Your task to perform on an android device: turn notification dots on Image 0: 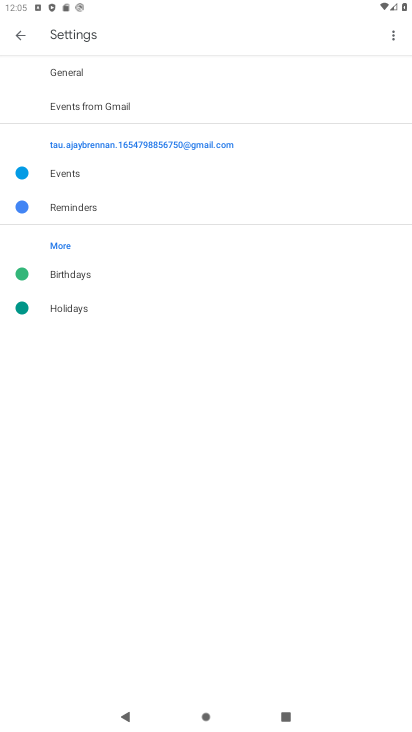
Step 0: press home button
Your task to perform on an android device: turn notification dots on Image 1: 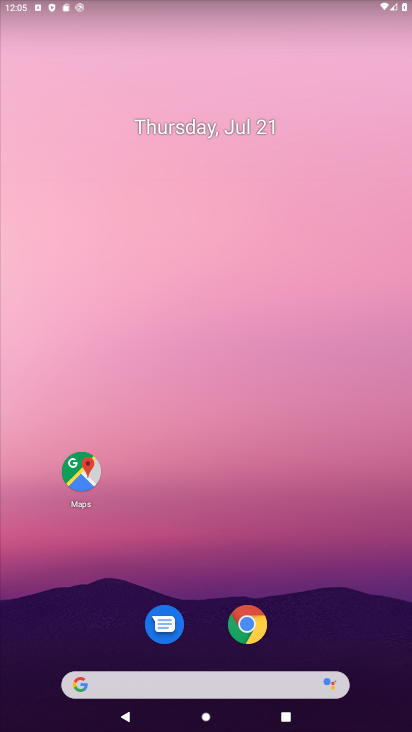
Step 1: drag from (199, 601) to (201, 75)
Your task to perform on an android device: turn notification dots on Image 2: 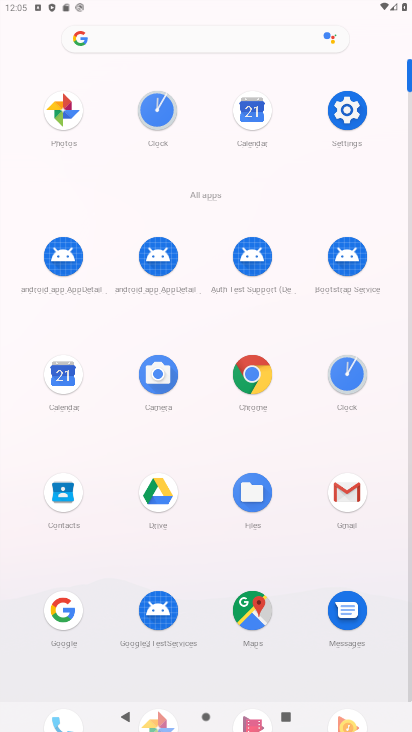
Step 2: click (339, 91)
Your task to perform on an android device: turn notification dots on Image 3: 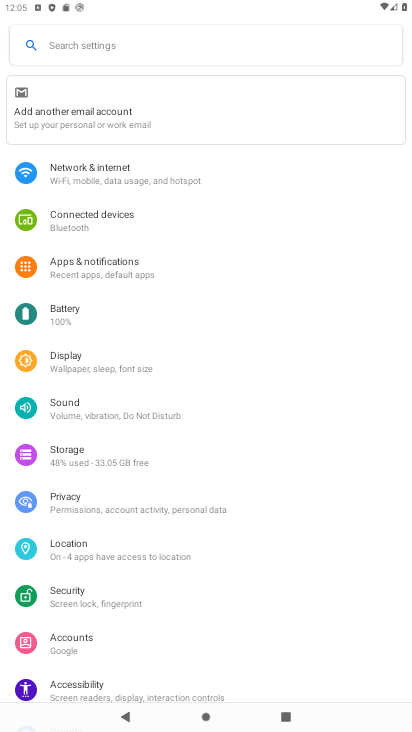
Step 3: click (136, 264)
Your task to perform on an android device: turn notification dots on Image 4: 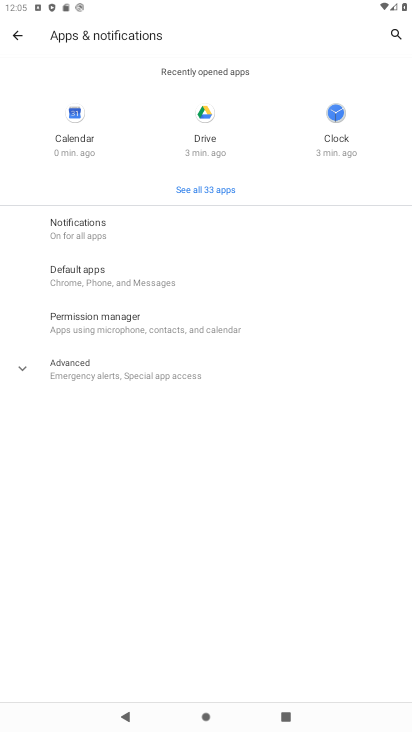
Step 4: click (97, 234)
Your task to perform on an android device: turn notification dots on Image 5: 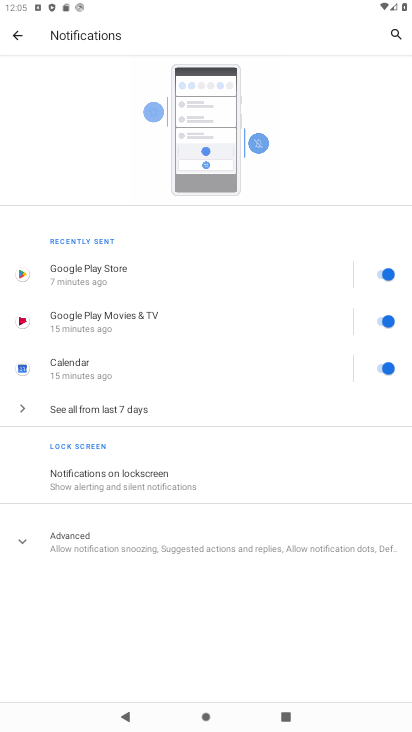
Step 5: click (169, 529)
Your task to perform on an android device: turn notification dots on Image 6: 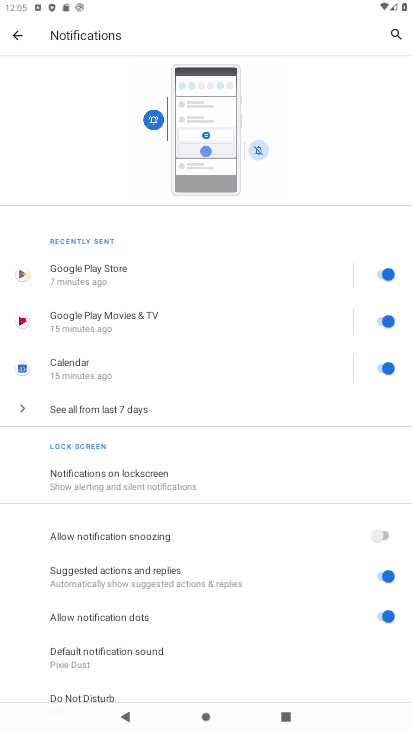
Step 6: task complete